Your task to perform on an android device: Open Google Chrome and click the shortcut for Amazon.com Image 0: 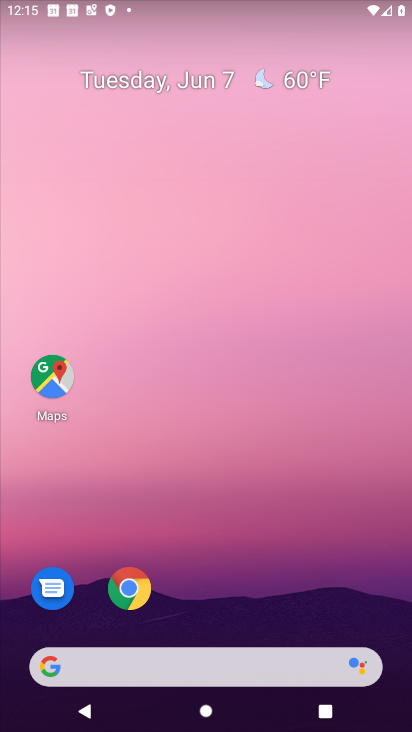
Step 0: click (143, 591)
Your task to perform on an android device: Open Google Chrome and click the shortcut for Amazon.com Image 1: 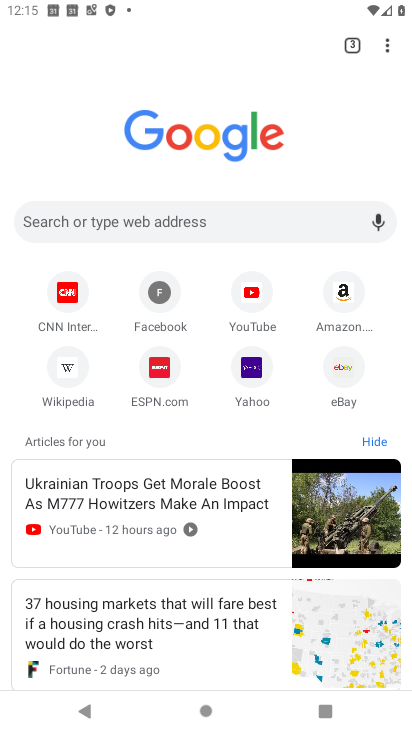
Step 1: click (341, 304)
Your task to perform on an android device: Open Google Chrome and click the shortcut for Amazon.com Image 2: 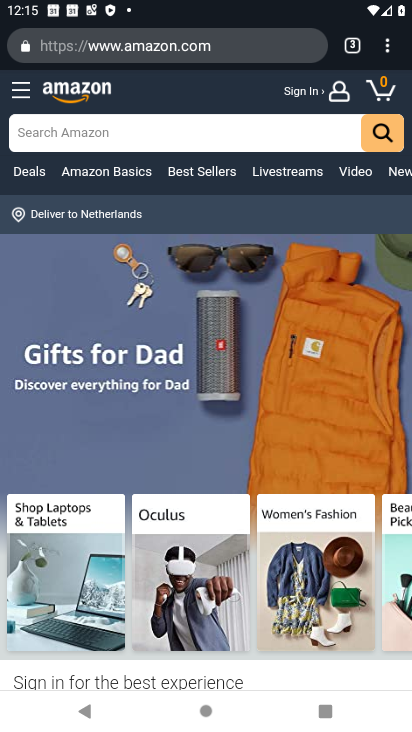
Step 2: task complete